Your task to perform on an android device: check android version Image 0: 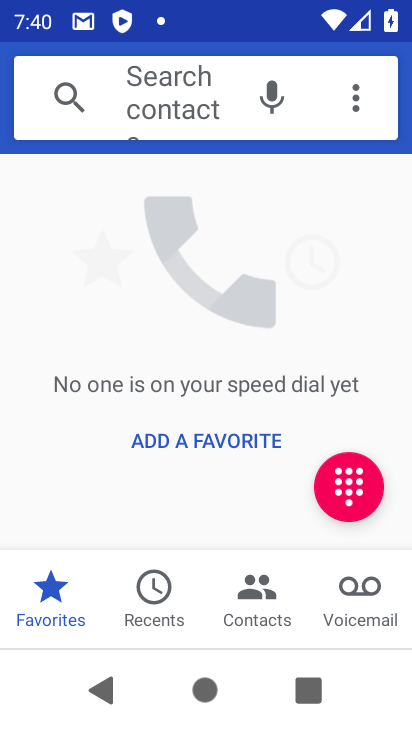
Step 0: press home button
Your task to perform on an android device: check android version Image 1: 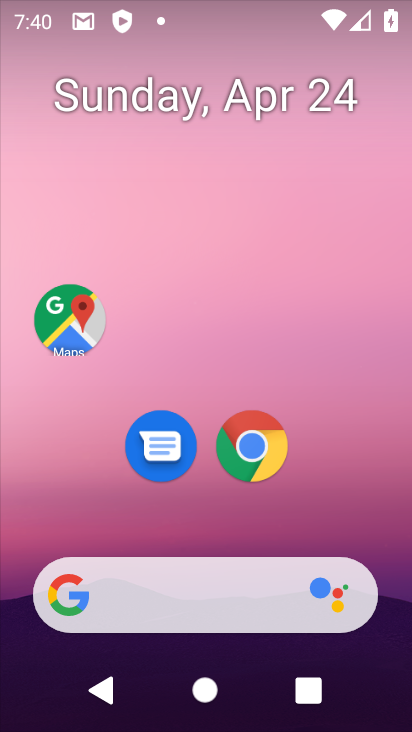
Step 1: drag from (205, 516) to (279, 36)
Your task to perform on an android device: check android version Image 2: 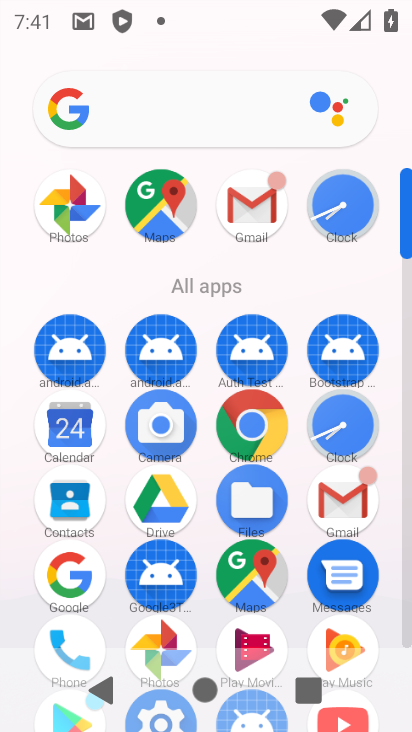
Step 2: drag from (286, 362) to (300, 71)
Your task to perform on an android device: check android version Image 3: 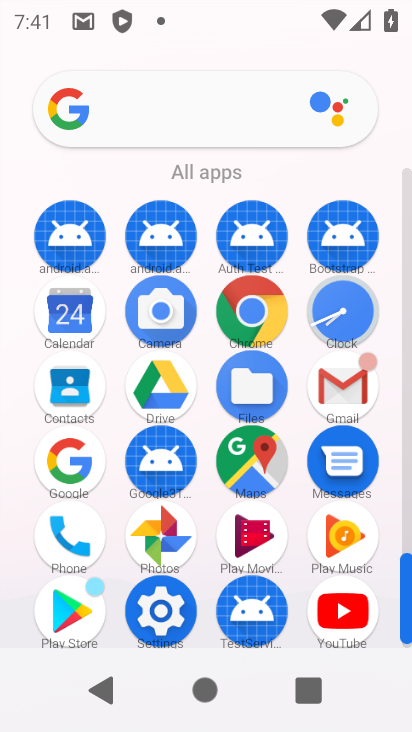
Step 3: drag from (272, 417) to (327, 44)
Your task to perform on an android device: check android version Image 4: 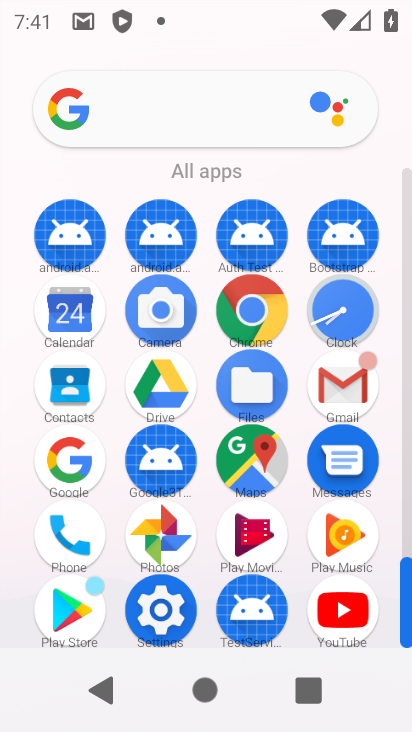
Step 4: click (169, 611)
Your task to perform on an android device: check android version Image 5: 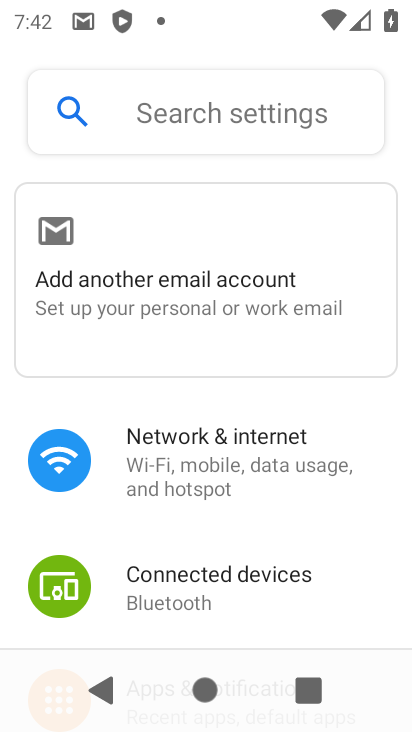
Step 5: drag from (255, 379) to (256, 99)
Your task to perform on an android device: check android version Image 6: 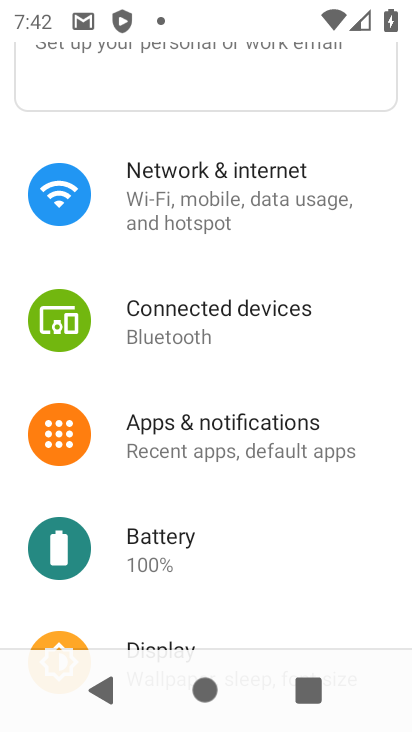
Step 6: drag from (245, 538) to (292, 217)
Your task to perform on an android device: check android version Image 7: 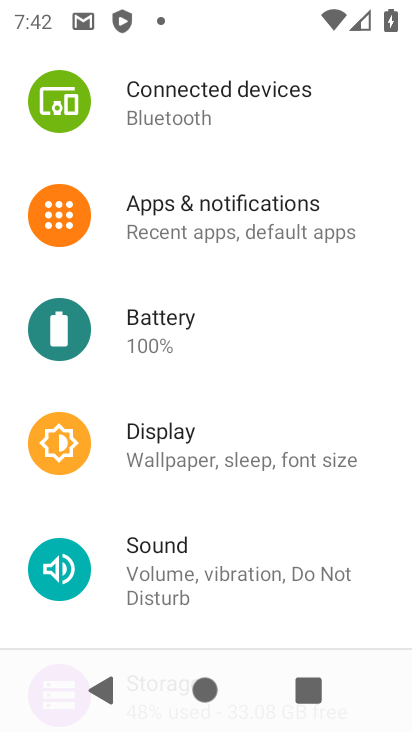
Step 7: drag from (237, 408) to (272, 141)
Your task to perform on an android device: check android version Image 8: 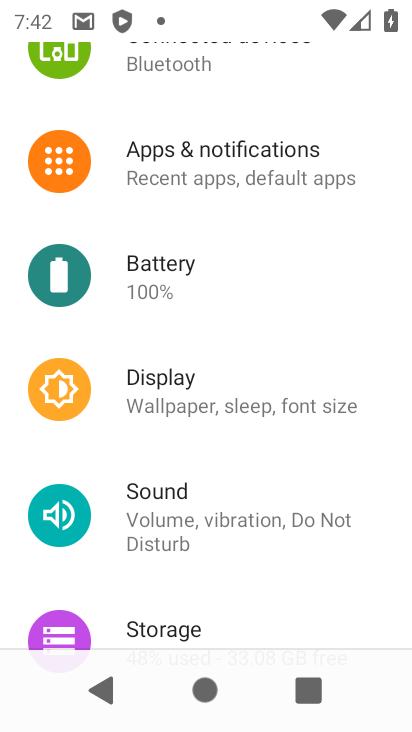
Step 8: drag from (208, 482) to (248, 35)
Your task to perform on an android device: check android version Image 9: 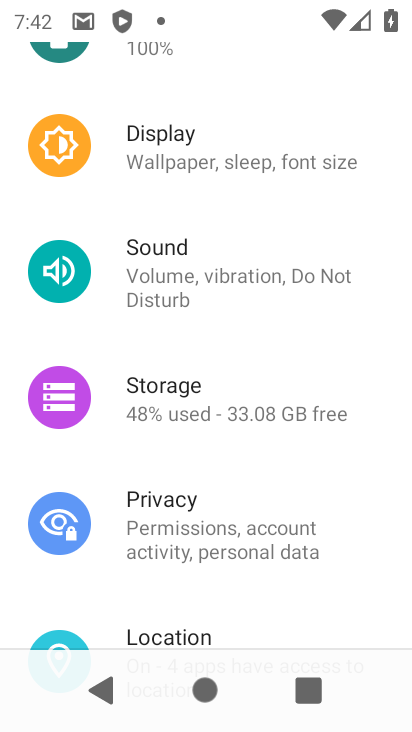
Step 9: drag from (270, 440) to (293, 6)
Your task to perform on an android device: check android version Image 10: 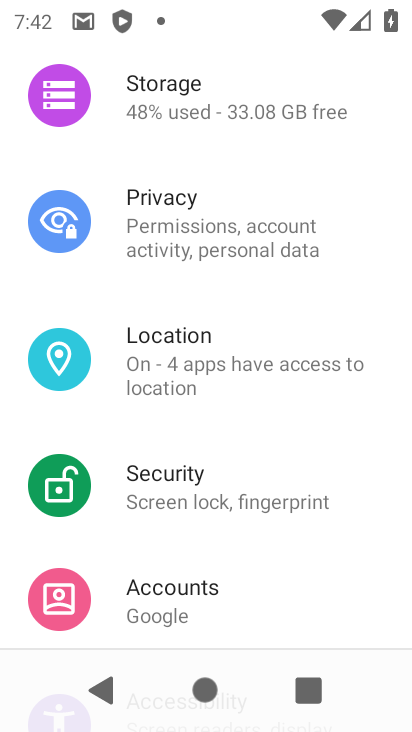
Step 10: click (244, 83)
Your task to perform on an android device: check android version Image 11: 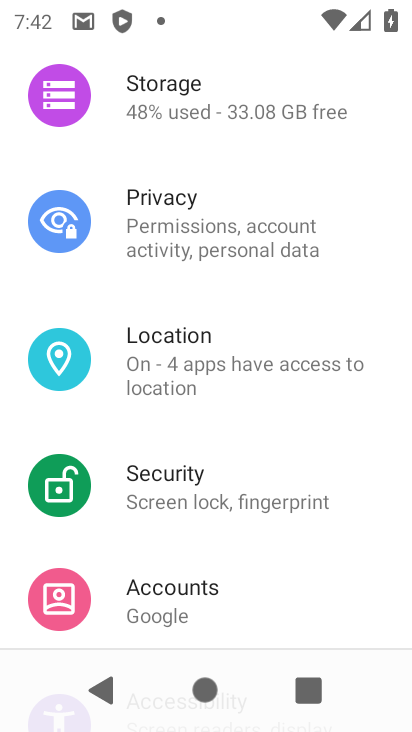
Step 11: drag from (223, 523) to (233, 201)
Your task to perform on an android device: check android version Image 12: 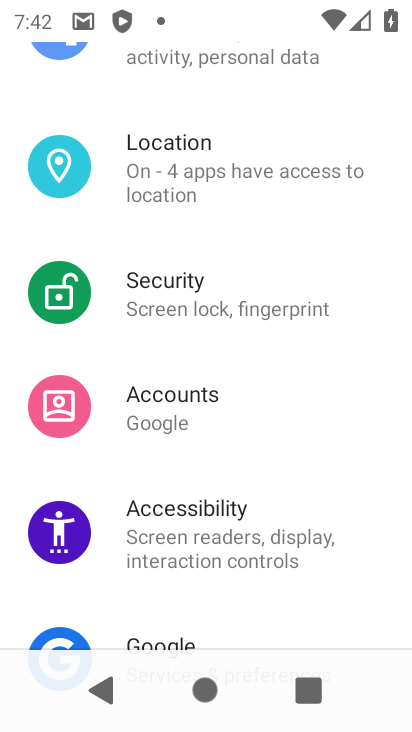
Step 12: drag from (223, 504) to (236, 8)
Your task to perform on an android device: check android version Image 13: 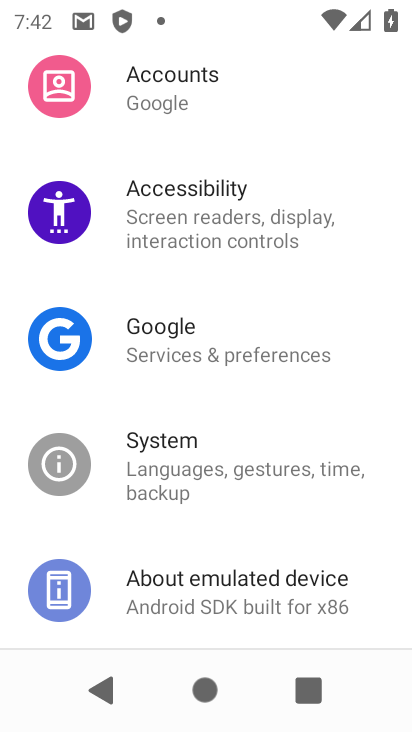
Step 13: drag from (138, 478) to (144, 0)
Your task to perform on an android device: check android version Image 14: 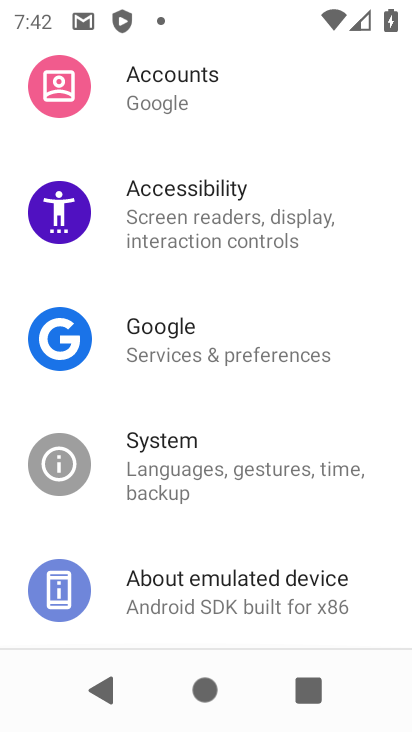
Step 14: click (205, 610)
Your task to perform on an android device: check android version Image 15: 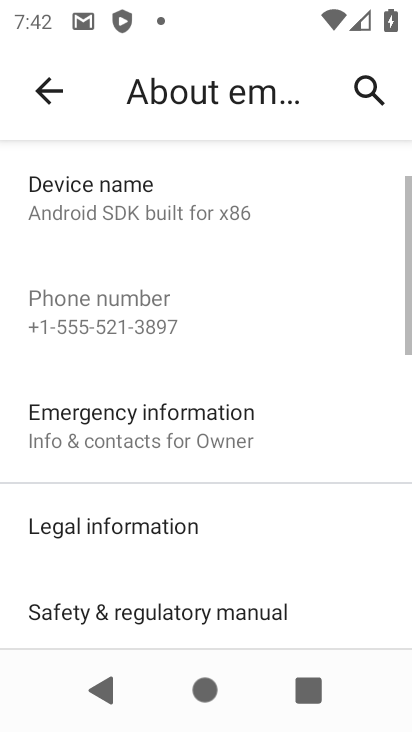
Step 15: drag from (177, 478) to (214, 193)
Your task to perform on an android device: check android version Image 16: 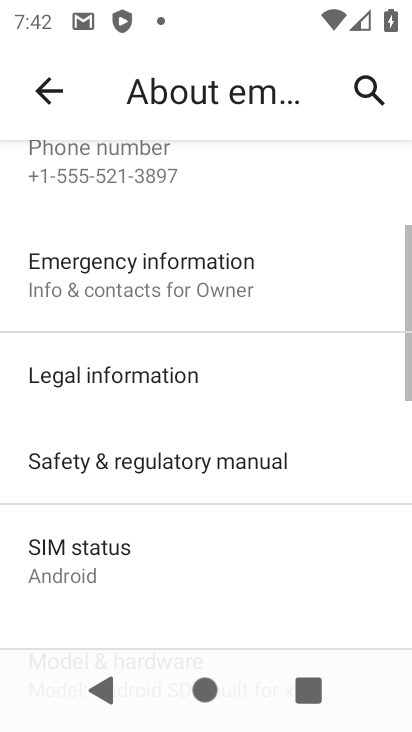
Step 16: drag from (141, 478) to (118, 19)
Your task to perform on an android device: check android version Image 17: 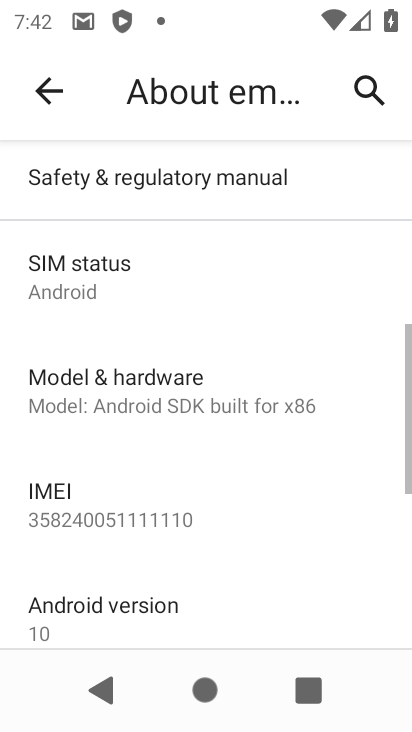
Step 17: click (147, 606)
Your task to perform on an android device: check android version Image 18: 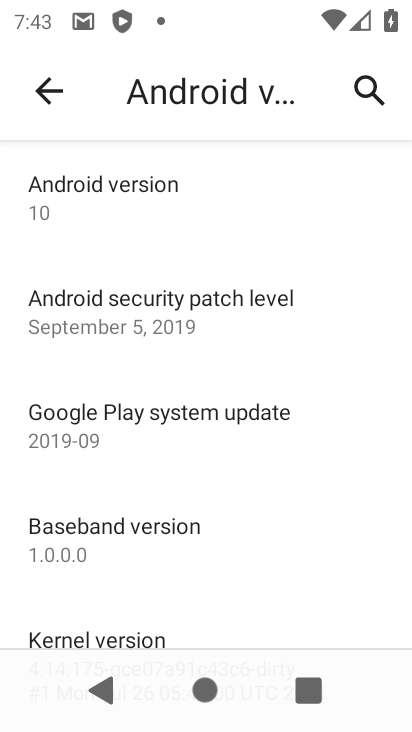
Step 18: task complete